Your task to perform on an android device: Turn off the flashlight Image 0: 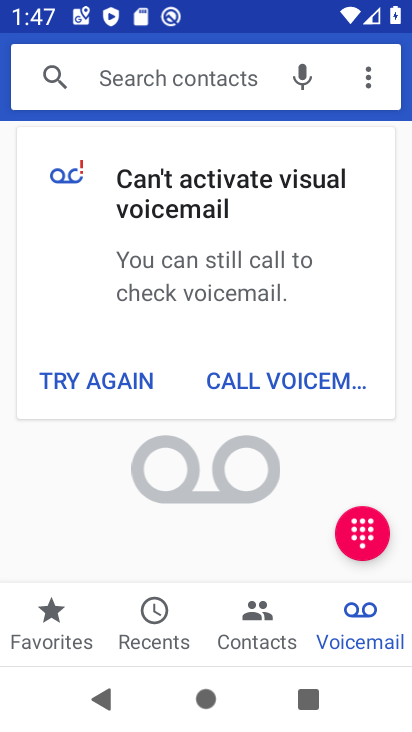
Step 0: press home button
Your task to perform on an android device: Turn off the flashlight Image 1: 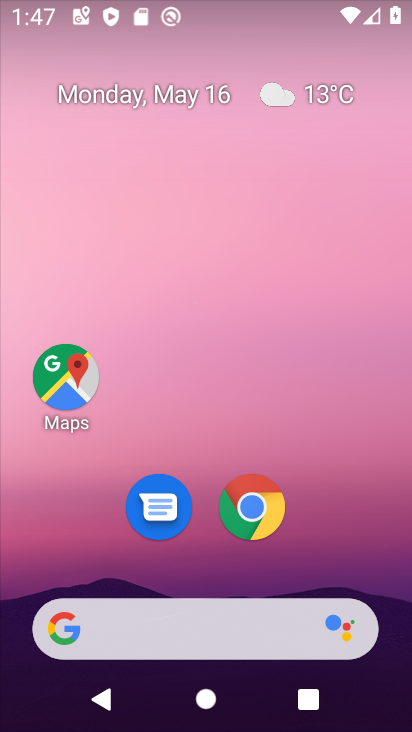
Step 1: drag from (289, 10) to (277, 409)
Your task to perform on an android device: Turn off the flashlight Image 2: 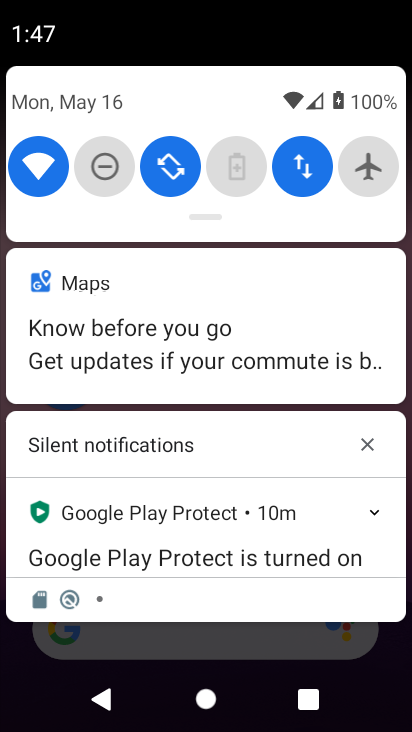
Step 2: drag from (202, 104) to (198, 427)
Your task to perform on an android device: Turn off the flashlight Image 3: 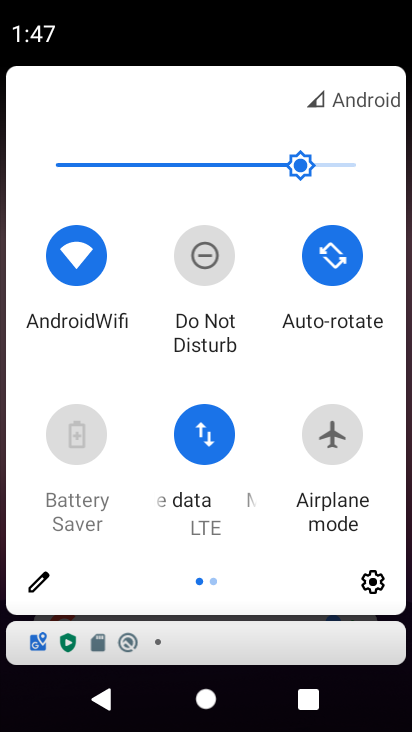
Step 3: click (46, 580)
Your task to perform on an android device: Turn off the flashlight Image 4: 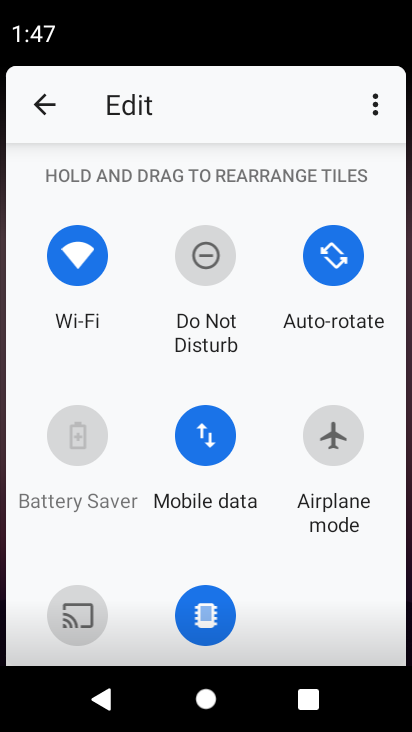
Step 4: task complete